Your task to perform on an android device: Search for the best rated phone case for the iPhone 8. Image 0: 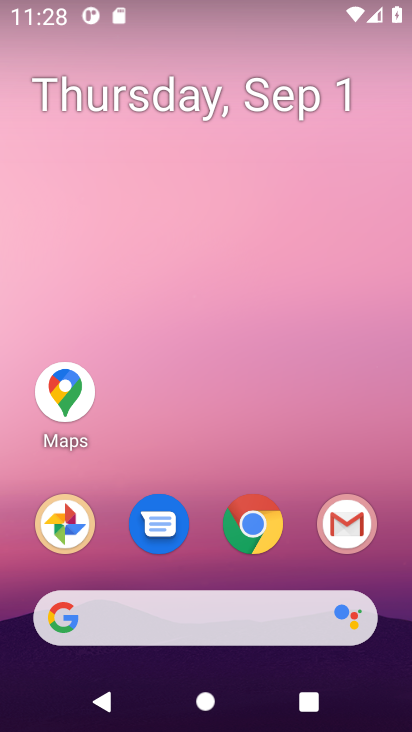
Step 0: click (216, 623)
Your task to perform on an android device: Search for the best rated phone case for the iPhone 8. Image 1: 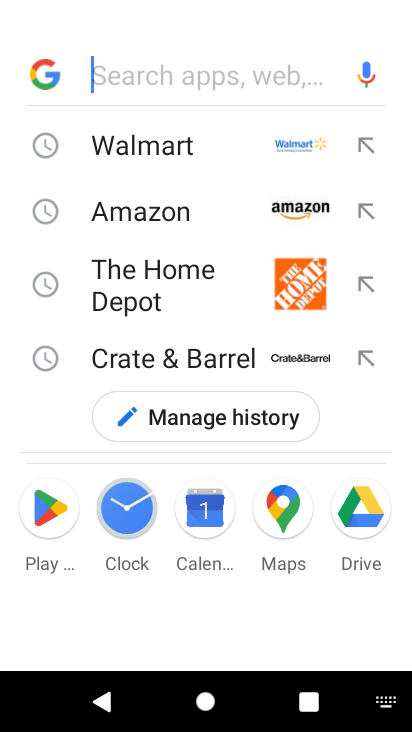
Step 1: press enter
Your task to perform on an android device: Search for the best rated phone case for the iPhone 8. Image 2: 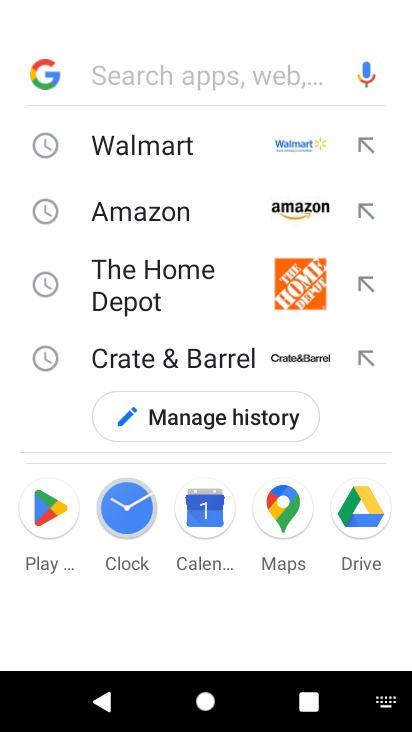
Step 2: type "est rated phone case for the iPhone 8"
Your task to perform on an android device: Search for the best rated phone case for the iPhone 8. Image 3: 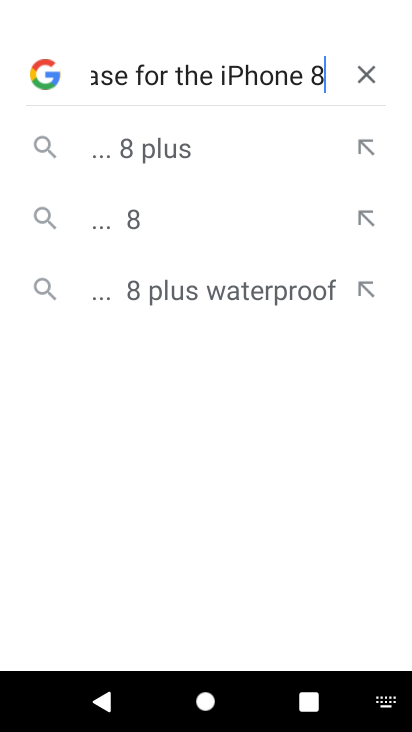
Step 3: press enter
Your task to perform on an android device: Search for the best rated phone case for the iPhone 8. Image 4: 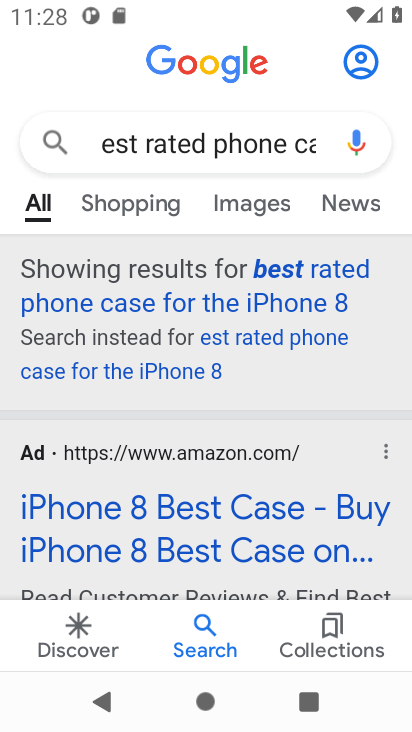
Step 4: click (313, 272)
Your task to perform on an android device: Search for the best rated phone case for the iPhone 8. Image 5: 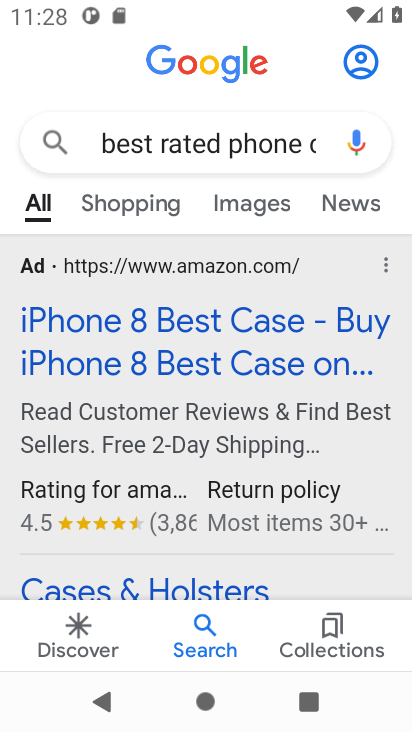
Step 5: click (265, 345)
Your task to perform on an android device: Search for the best rated phone case for the iPhone 8. Image 6: 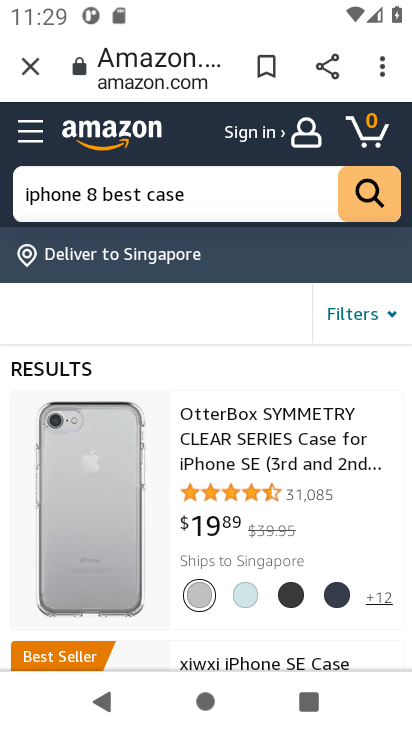
Step 6: task complete